Your task to perform on an android device: turn off translation in the chrome app Image 0: 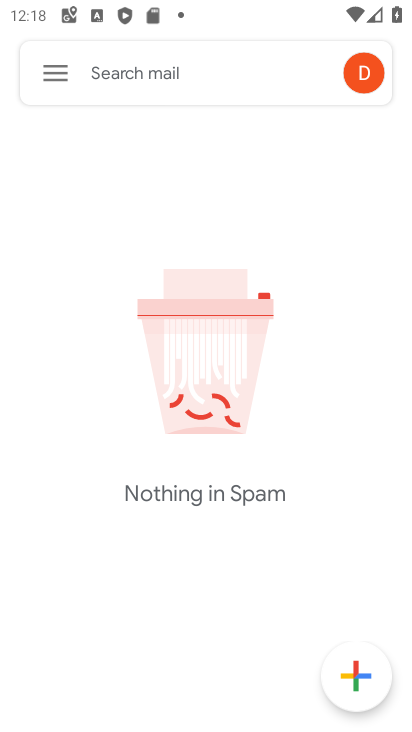
Step 0: press home button
Your task to perform on an android device: turn off translation in the chrome app Image 1: 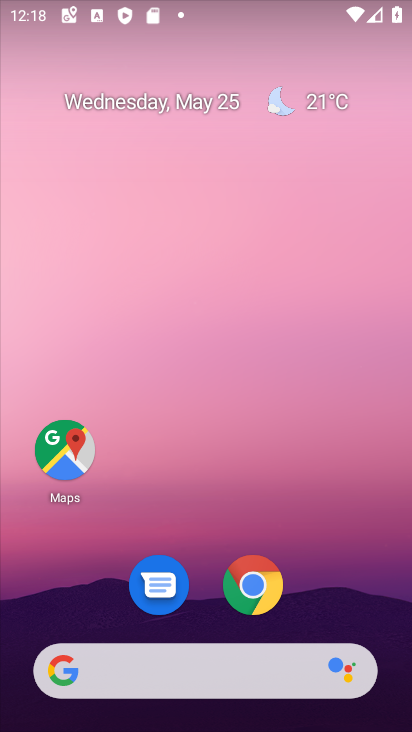
Step 1: click (251, 577)
Your task to perform on an android device: turn off translation in the chrome app Image 2: 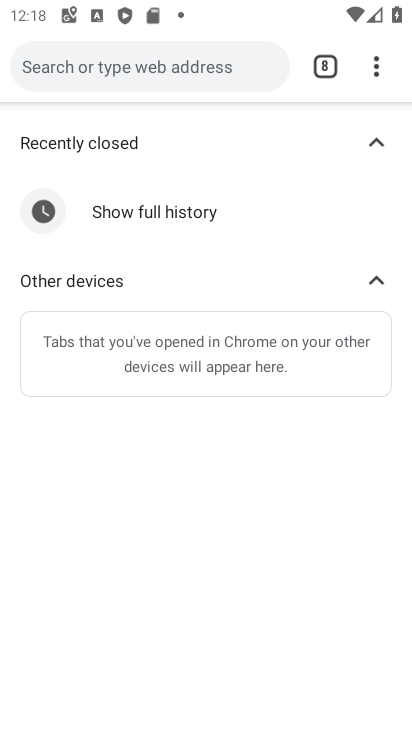
Step 2: click (378, 62)
Your task to perform on an android device: turn off translation in the chrome app Image 3: 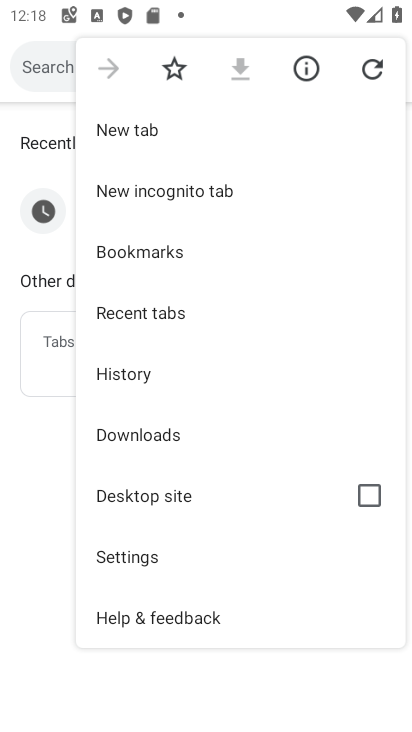
Step 3: click (189, 548)
Your task to perform on an android device: turn off translation in the chrome app Image 4: 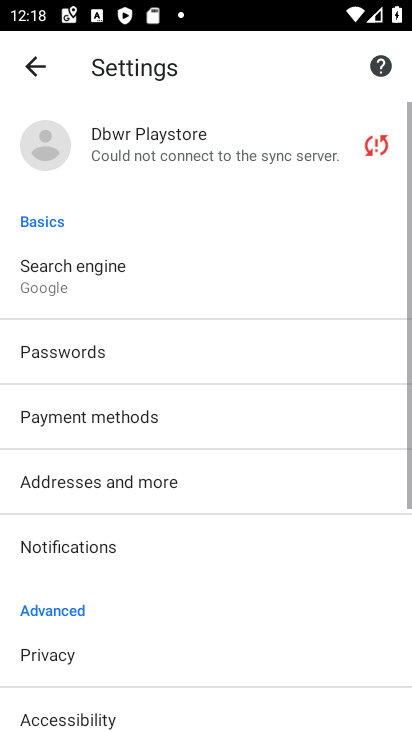
Step 4: drag from (193, 537) to (206, 256)
Your task to perform on an android device: turn off translation in the chrome app Image 5: 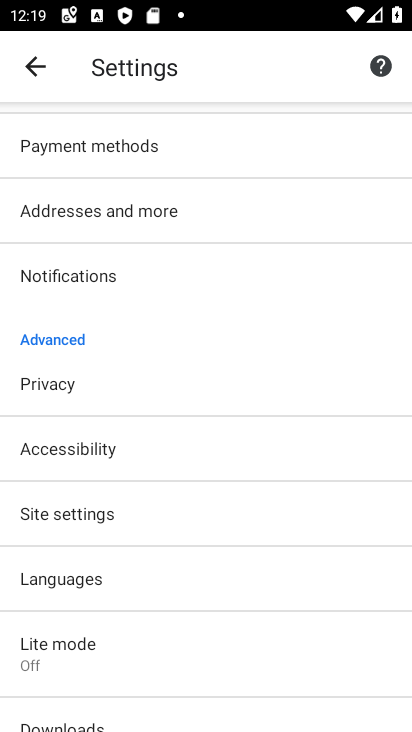
Step 5: click (196, 578)
Your task to perform on an android device: turn off translation in the chrome app Image 6: 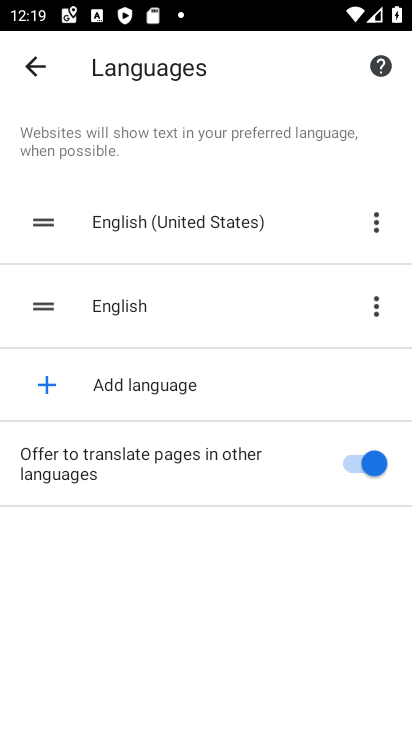
Step 6: click (359, 449)
Your task to perform on an android device: turn off translation in the chrome app Image 7: 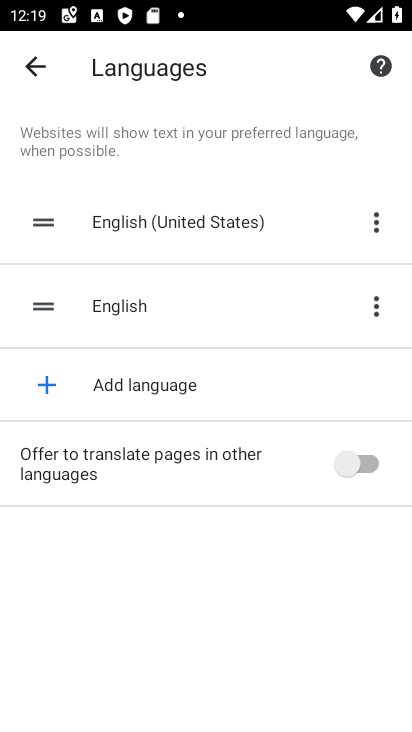
Step 7: task complete